Your task to perform on an android device: see creations saved in the google photos Image 0: 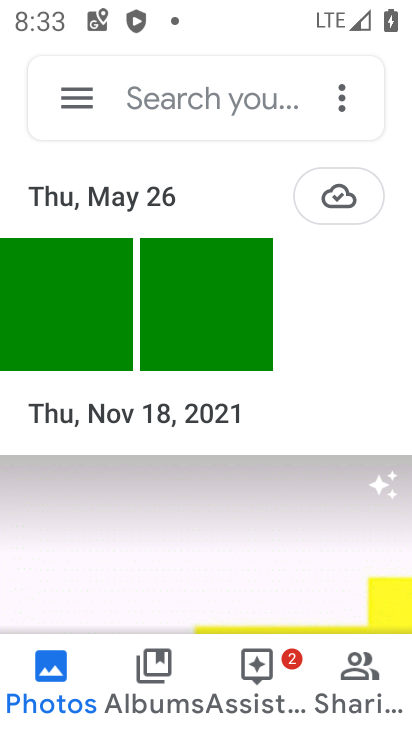
Step 0: click (211, 102)
Your task to perform on an android device: see creations saved in the google photos Image 1: 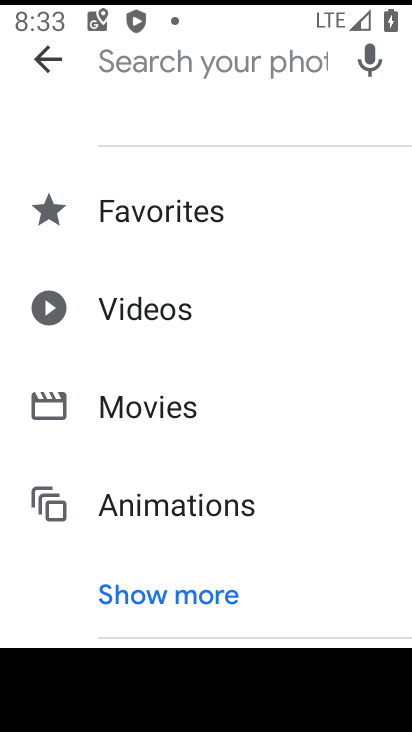
Step 1: click (201, 593)
Your task to perform on an android device: see creations saved in the google photos Image 2: 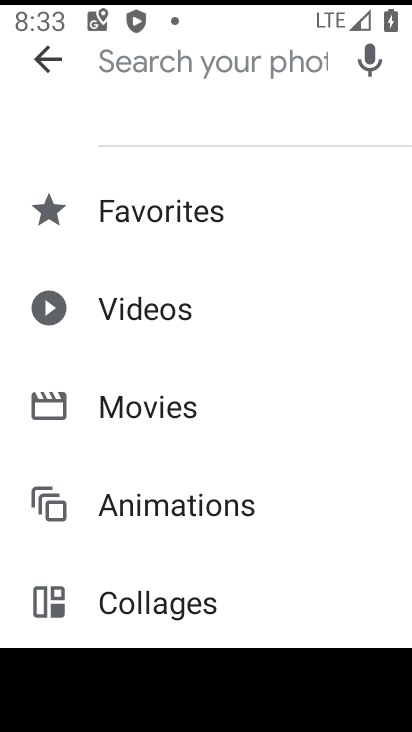
Step 2: drag from (266, 605) to (242, 136)
Your task to perform on an android device: see creations saved in the google photos Image 3: 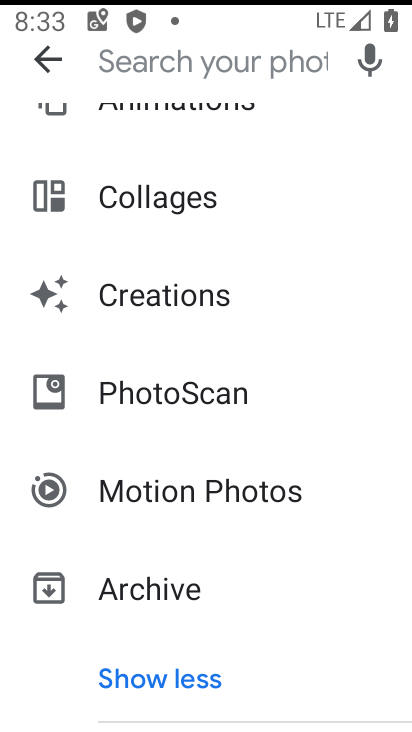
Step 3: click (206, 298)
Your task to perform on an android device: see creations saved in the google photos Image 4: 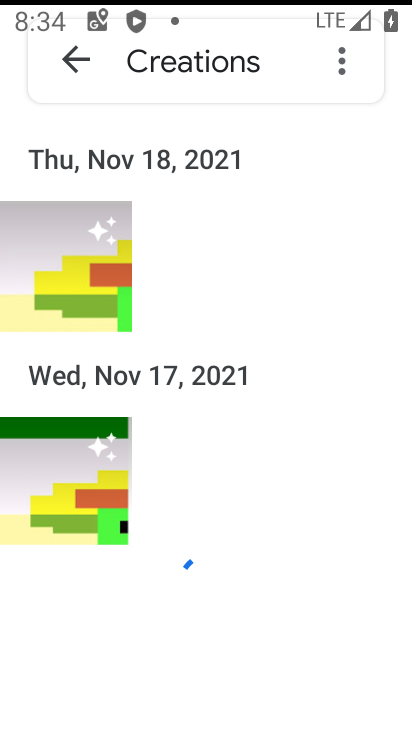
Step 4: task complete